Your task to perform on an android device: Open internet settings Image 0: 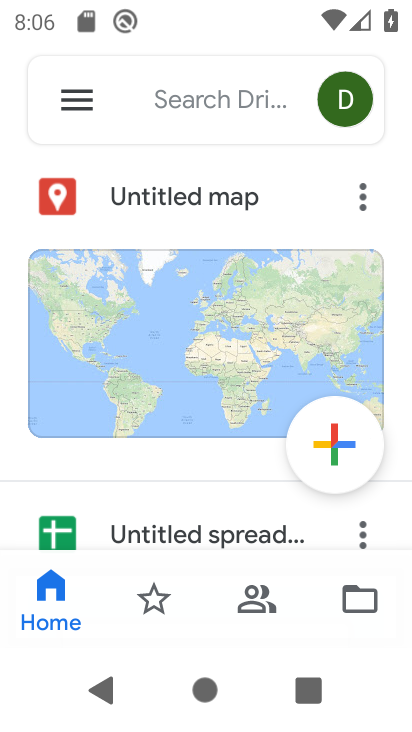
Step 0: press home button
Your task to perform on an android device: Open internet settings Image 1: 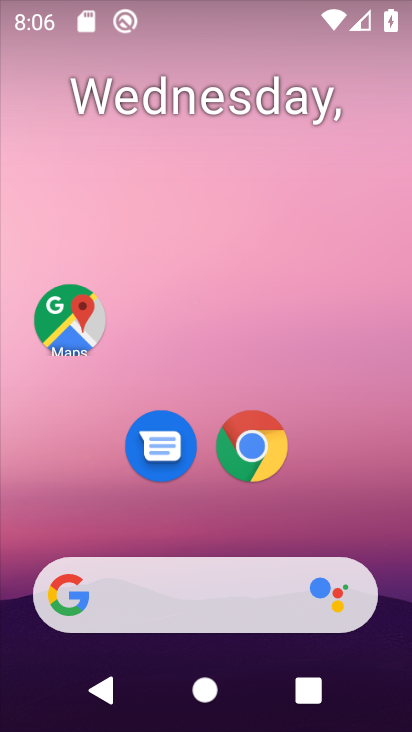
Step 1: drag from (204, 508) to (206, 281)
Your task to perform on an android device: Open internet settings Image 2: 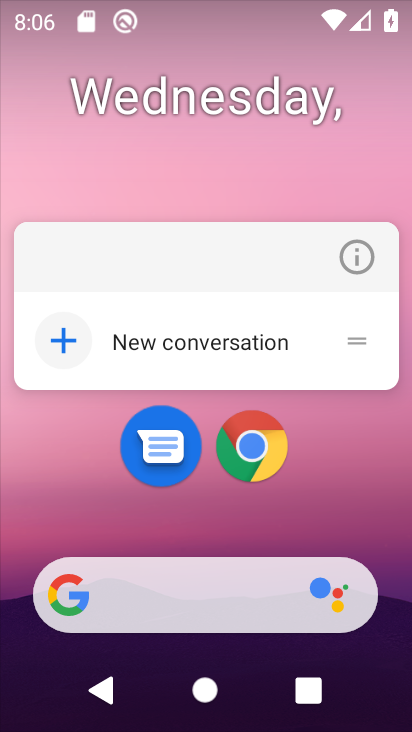
Step 2: click (209, 123)
Your task to perform on an android device: Open internet settings Image 3: 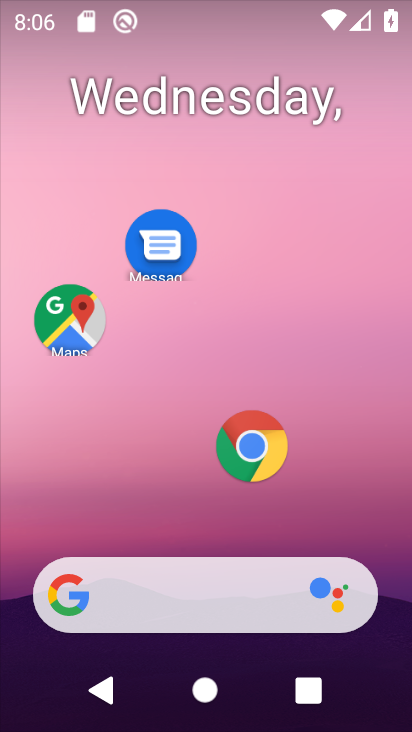
Step 3: drag from (187, 413) to (202, 64)
Your task to perform on an android device: Open internet settings Image 4: 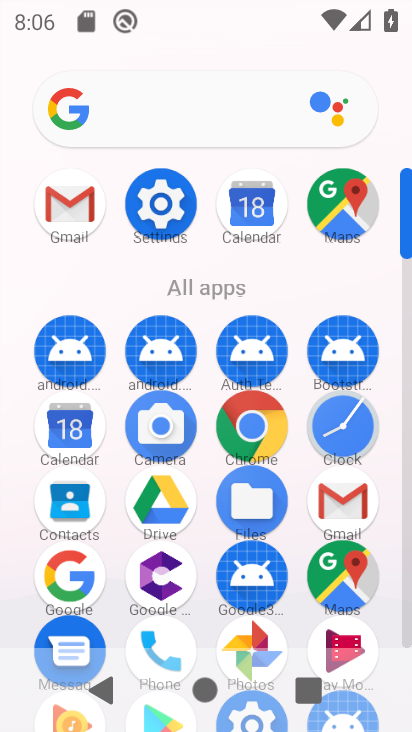
Step 4: click (158, 191)
Your task to perform on an android device: Open internet settings Image 5: 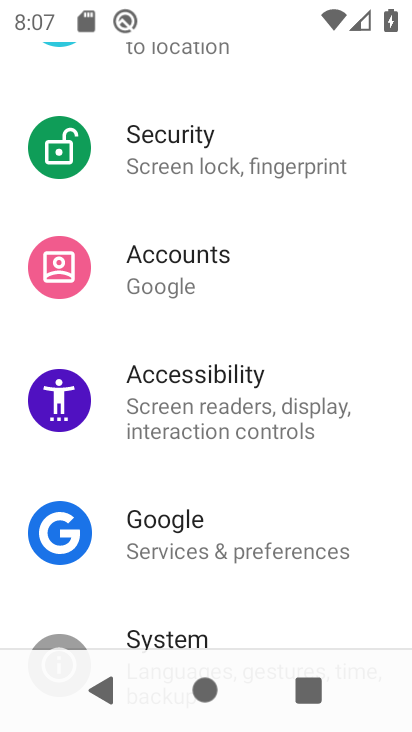
Step 5: drag from (186, 148) to (172, 687)
Your task to perform on an android device: Open internet settings Image 6: 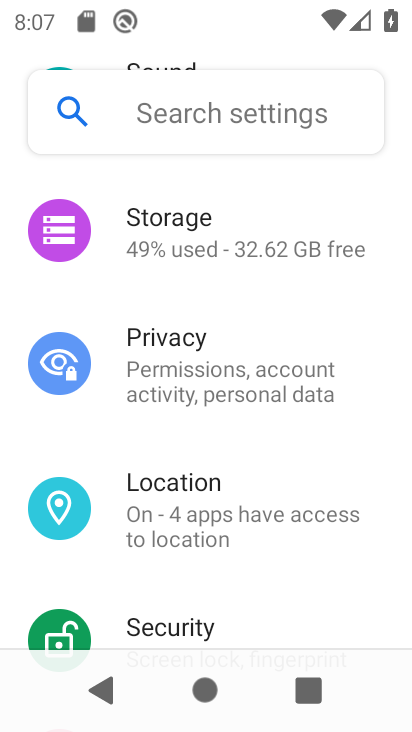
Step 6: drag from (190, 200) to (215, 731)
Your task to perform on an android device: Open internet settings Image 7: 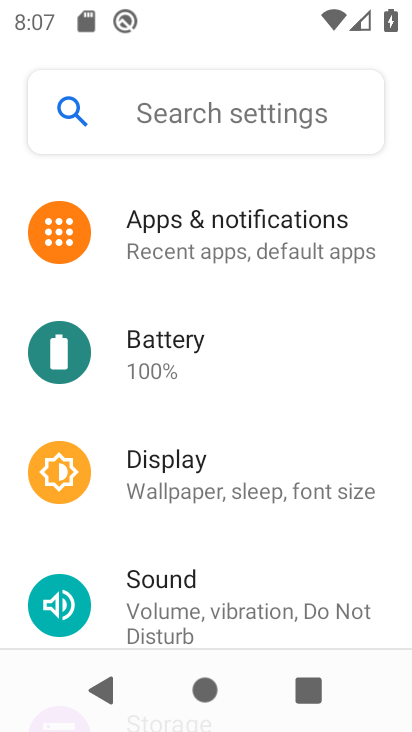
Step 7: drag from (249, 239) to (209, 721)
Your task to perform on an android device: Open internet settings Image 8: 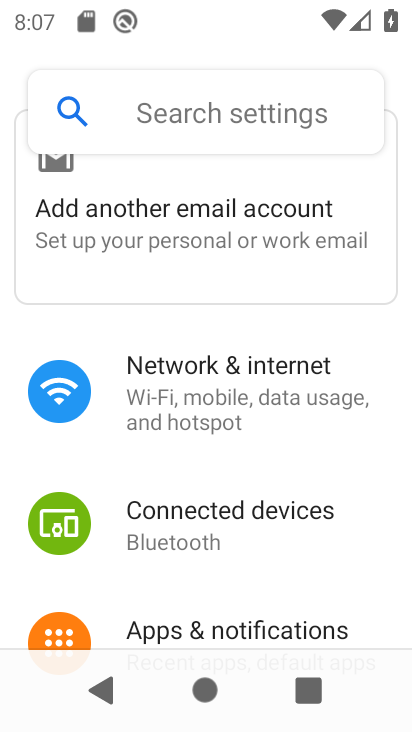
Step 8: click (179, 419)
Your task to perform on an android device: Open internet settings Image 9: 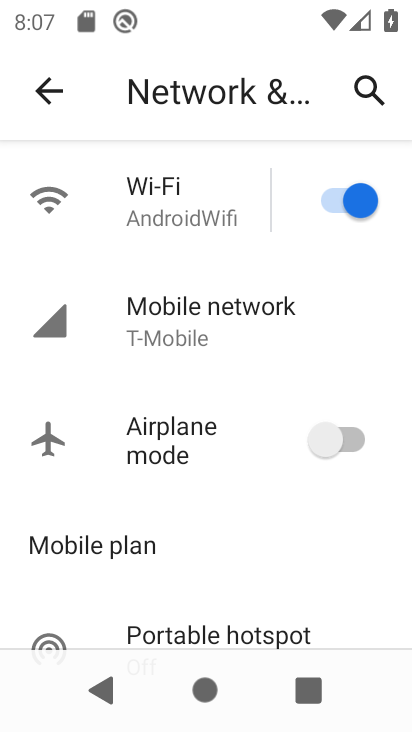
Step 9: drag from (183, 552) to (195, 236)
Your task to perform on an android device: Open internet settings Image 10: 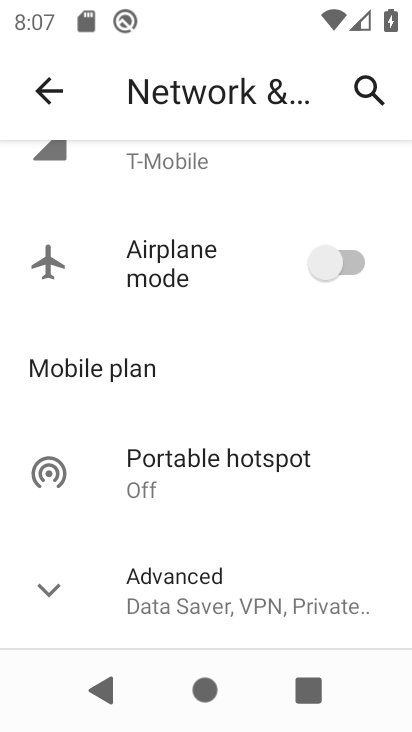
Step 10: click (181, 591)
Your task to perform on an android device: Open internet settings Image 11: 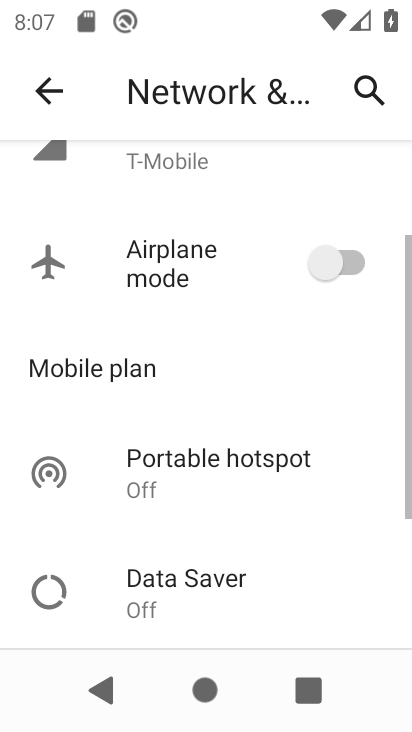
Step 11: task complete